Your task to perform on an android device: change the clock style Image 0: 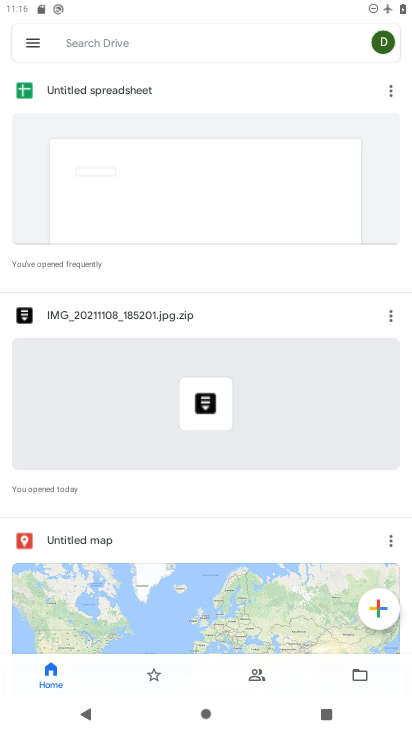
Step 0: press home button
Your task to perform on an android device: change the clock style Image 1: 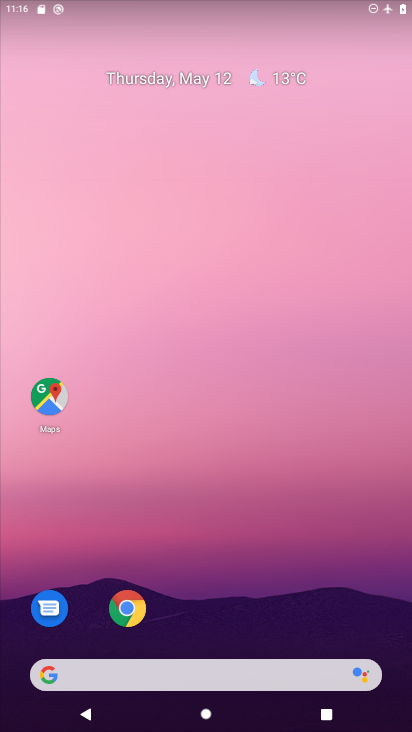
Step 1: drag from (227, 598) to (181, 77)
Your task to perform on an android device: change the clock style Image 2: 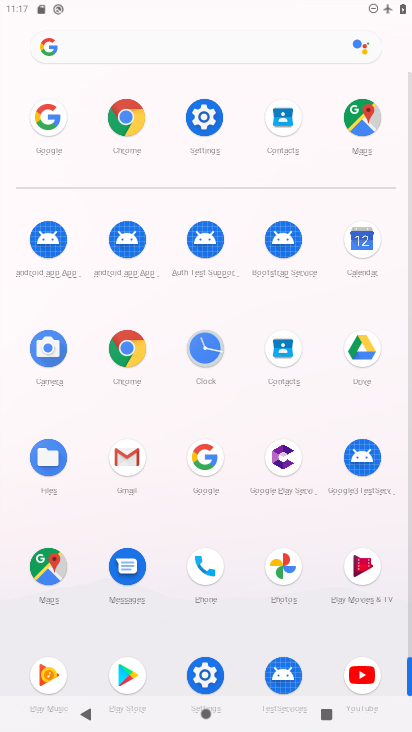
Step 2: click (208, 351)
Your task to perform on an android device: change the clock style Image 3: 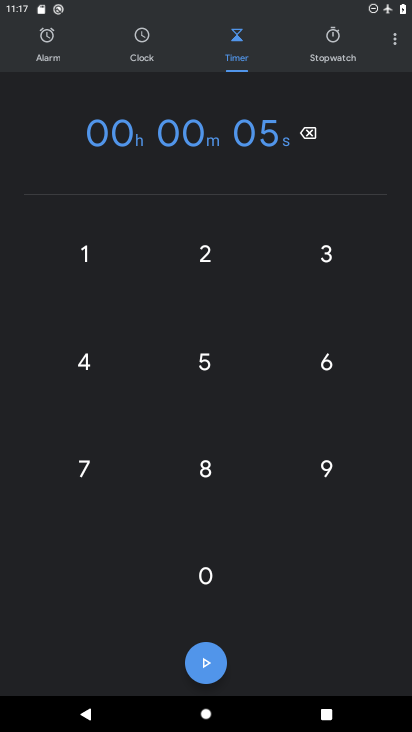
Step 3: click (388, 33)
Your task to perform on an android device: change the clock style Image 4: 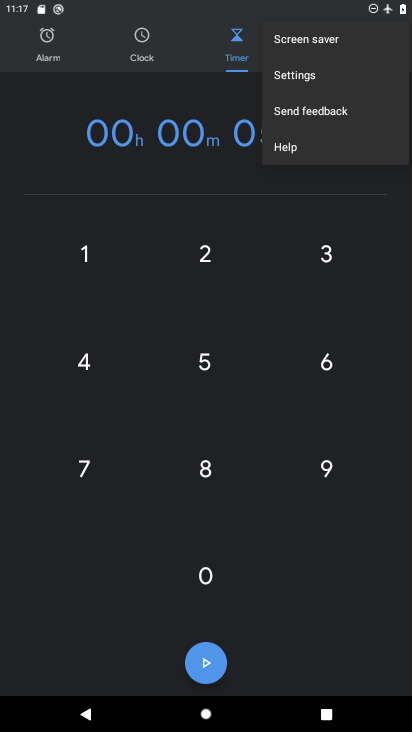
Step 4: click (298, 73)
Your task to perform on an android device: change the clock style Image 5: 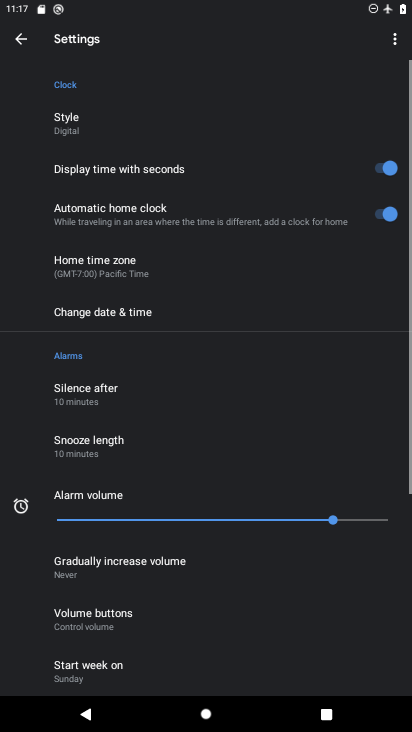
Step 5: click (106, 115)
Your task to perform on an android device: change the clock style Image 6: 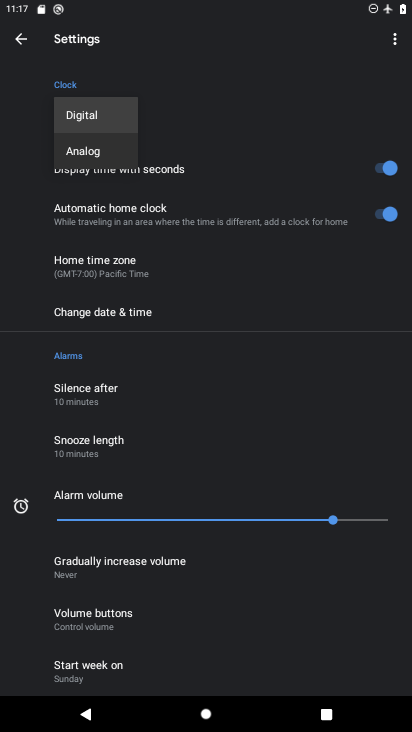
Step 6: click (49, 161)
Your task to perform on an android device: change the clock style Image 7: 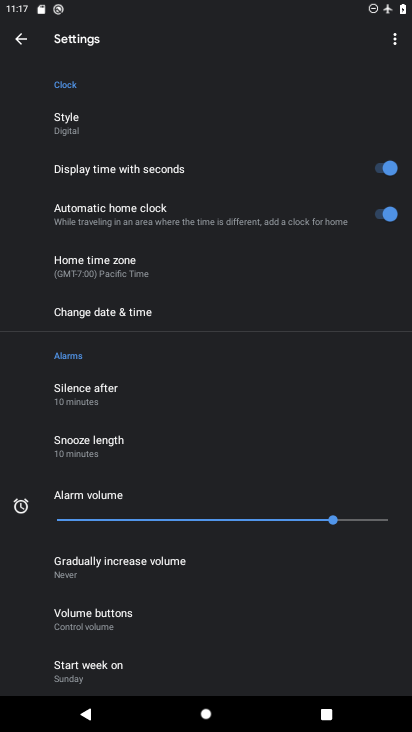
Step 7: click (86, 130)
Your task to perform on an android device: change the clock style Image 8: 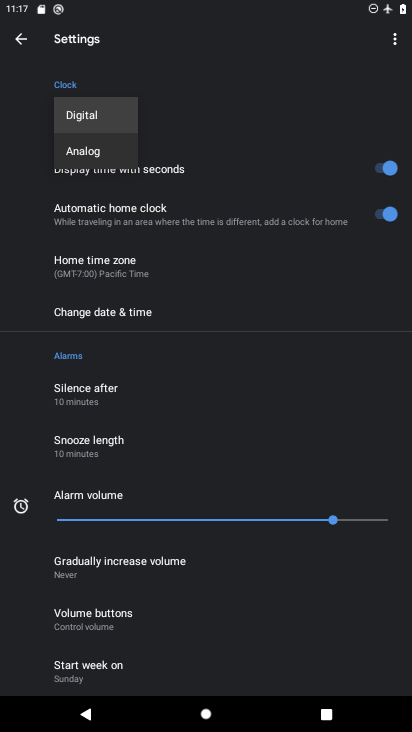
Step 8: click (102, 147)
Your task to perform on an android device: change the clock style Image 9: 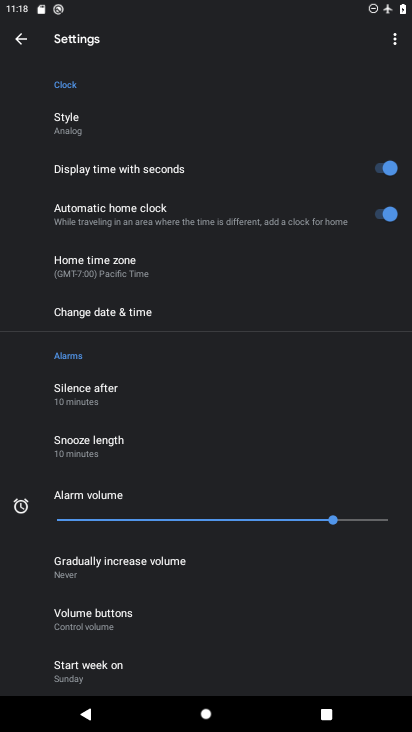
Step 9: task complete